Your task to perform on an android device: Go to Google Image 0: 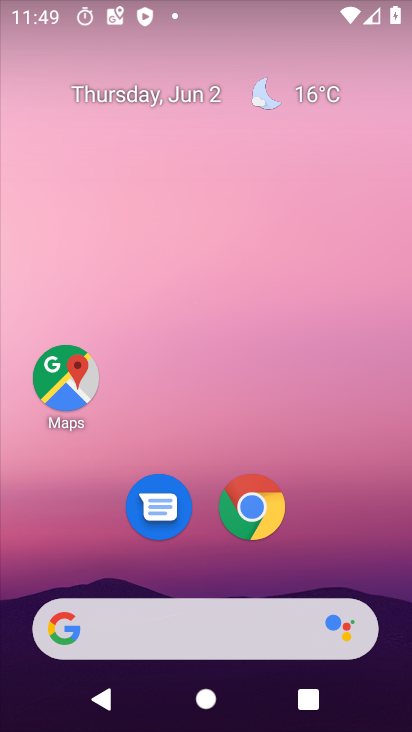
Step 0: drag from (395, 613) to (291, 43)
Your task to perform on an android device: Go to Google Image 1: 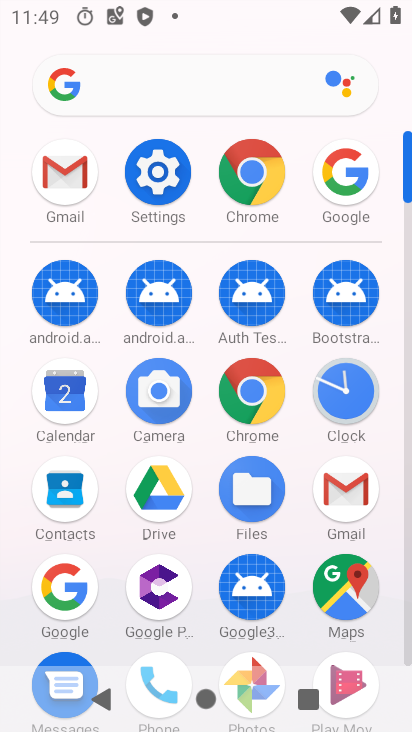
Step 1: click (56, 563)
Your task to perform on an android device: Go to Google Image 2: 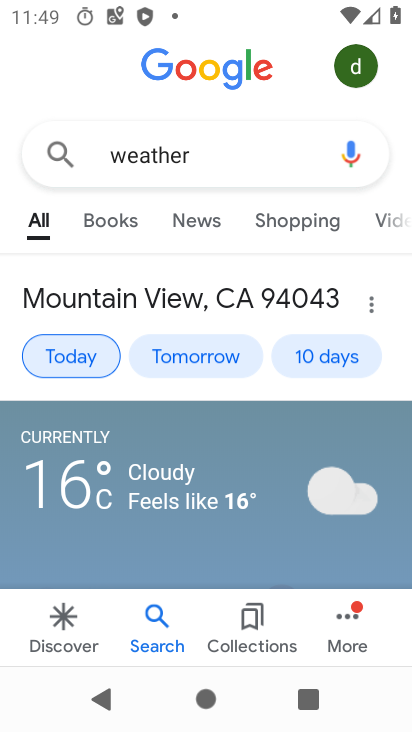
Step 2: task complete